Your task to perform on an android device: Go to eBay Image 0: 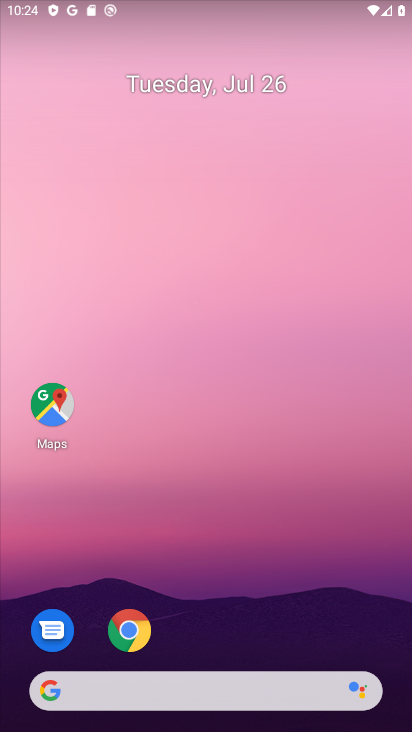
Step 0: click (112, 696)
Your task to perform on an android device: Go to eBay Image 1: 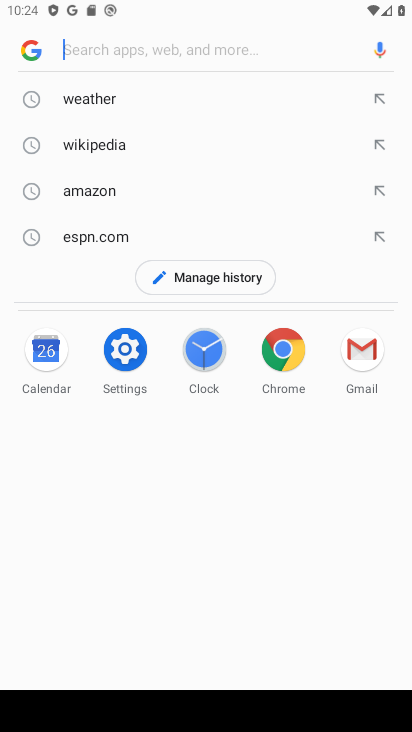
Step 1: type "ebay"
Your task to perform on an android device: Go to eBay Image 2: 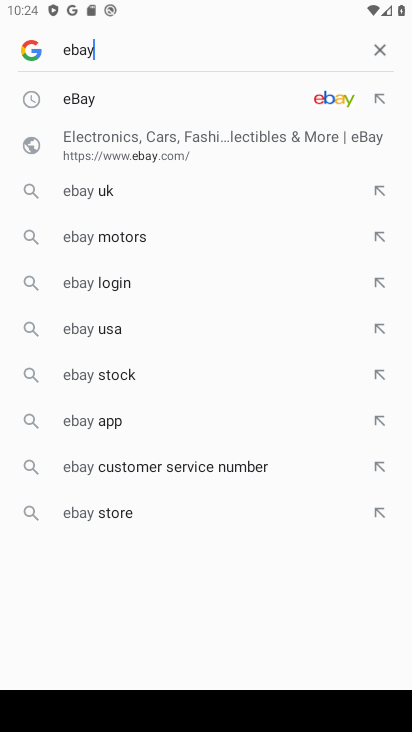
Step 2: click (333, 93)
Your task to perform on an android device: Go to eBay Image 3: 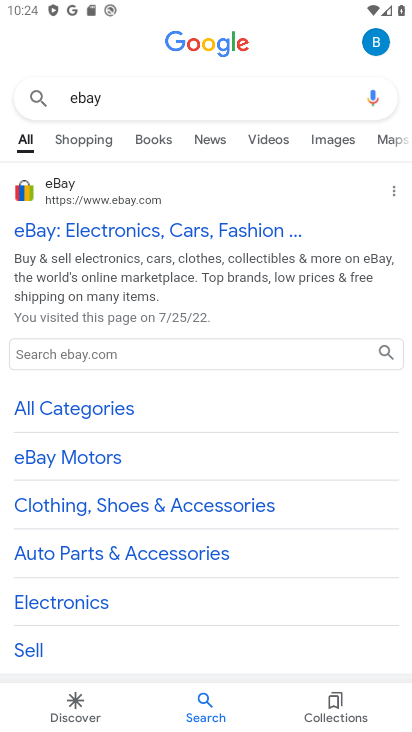
Step 3: click (69, 192)
Your task to perform on an android device: Go to eBay Image 4: 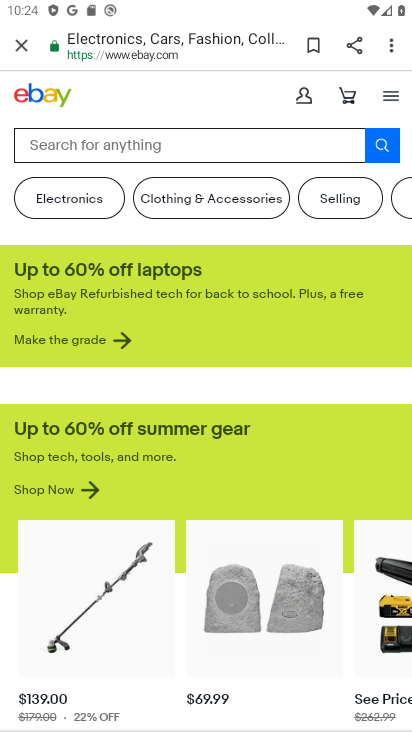
Step 4: task complete